Your task to perform on an android device: toggle data saver in the chrome app Image 0: 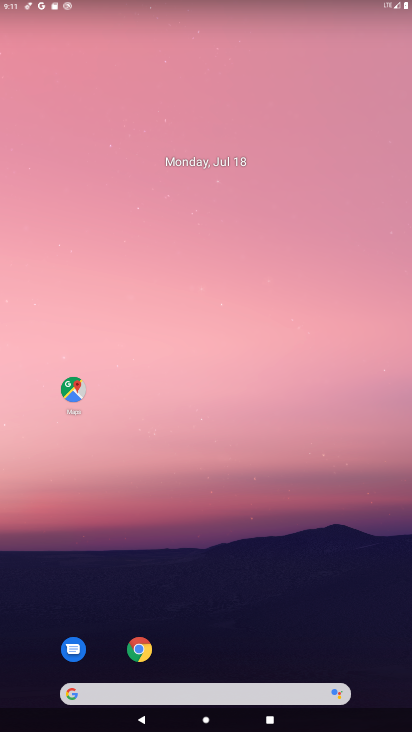
Step 0: click (146, 643)
Your task to perform on an android device: toggle data saver in the chrome app Image 1: 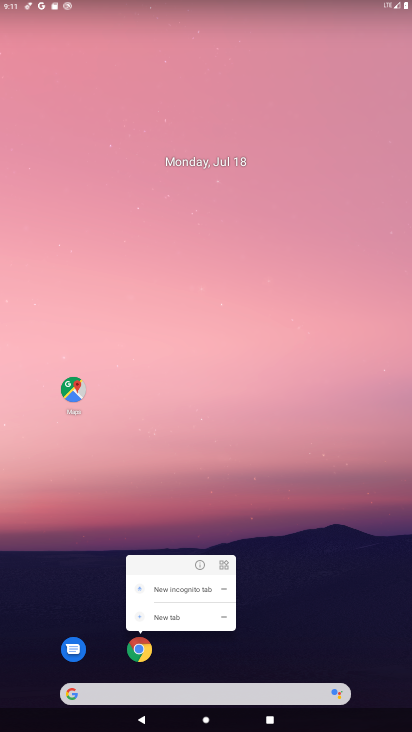
Step 1: click (136, 653)
Your task to perform on an android device: toggle data saver in the chrome app Image 2: 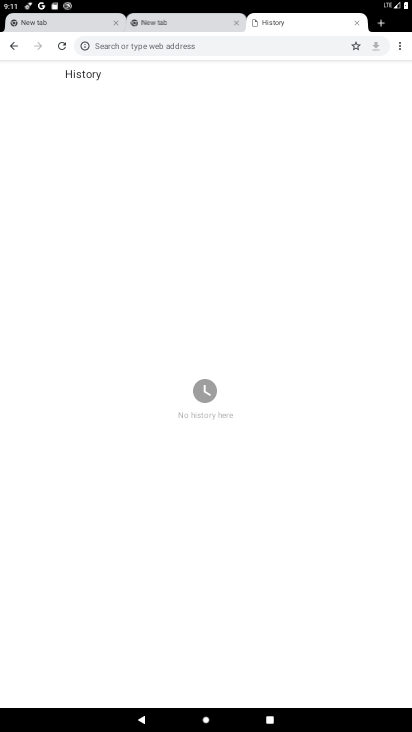
Step 2: click (396, 43)
Your task to perform on an android device: toggle data saver in the chrome app Image 3: 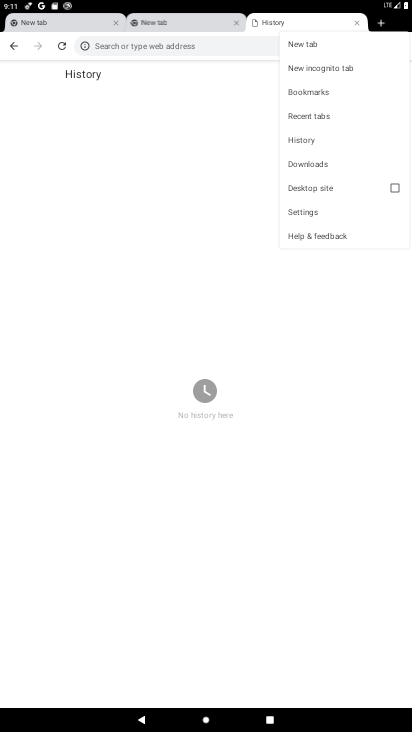
Step 3: click (302, 210)
Your task to perform on an android device: toggle data saver in the chrome app Image 4: 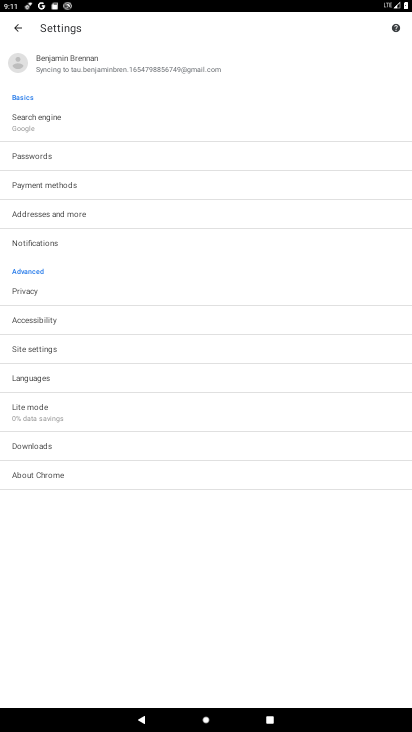
Step 4: click (44, 413)
Your task to perform on an android device: toggle data saver in the chrome app Image 5: 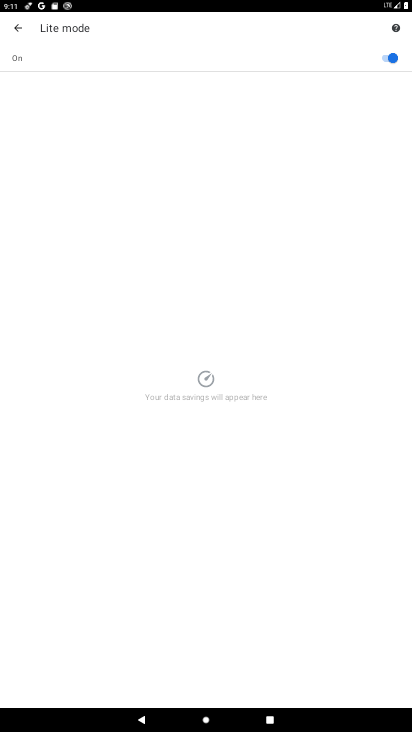
Step 5: click (386, 57)
Your task to perform on an android device: toggle data saver in the chrome app Image 6: 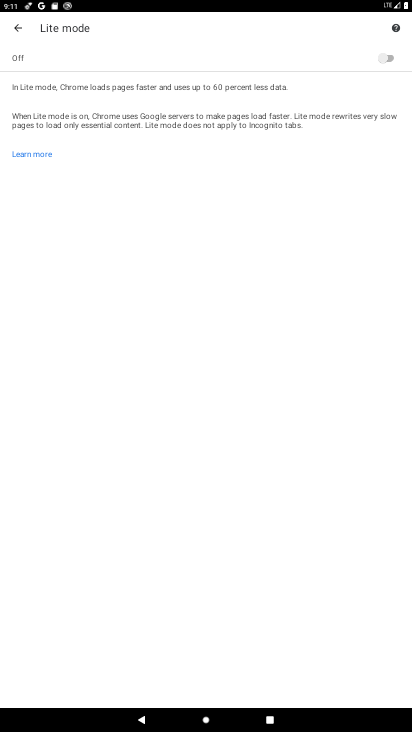
Step 6: task complete